Your task to perform on an android device: turn pop-ups off in chrome Image 0: 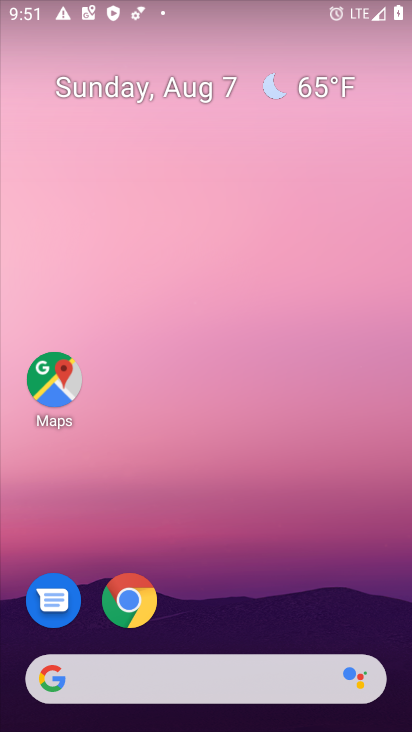
Step 0: click (121, 606)
Your task to perform on an android device: turn pop-ups off in chrome Image 1: 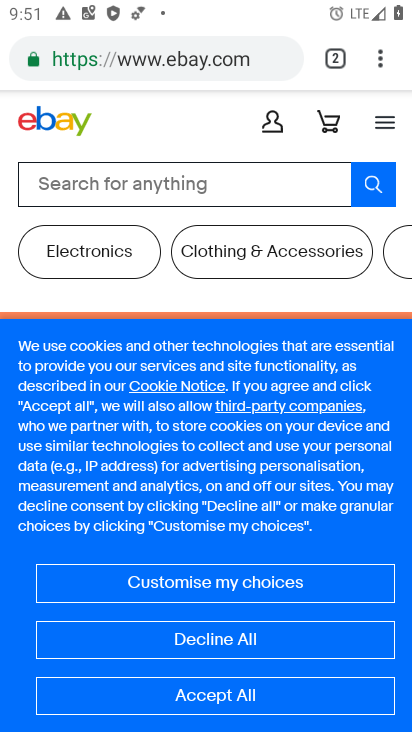
Step 1: click (383, 65)
Your task to perform on an android device: turn pop-ups off in chrome Image 2: 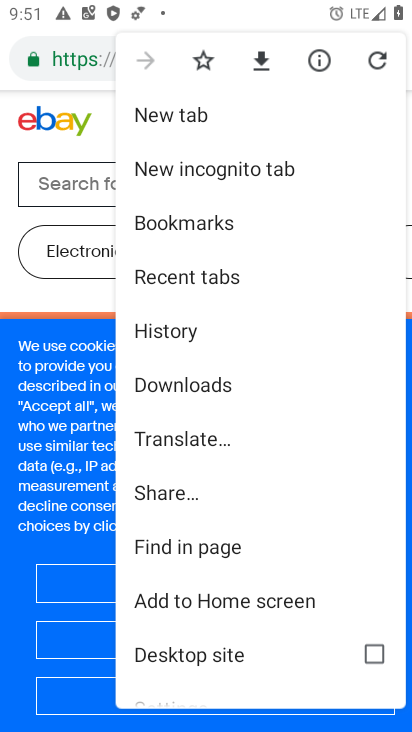
Step 2: drag from (258, 365) to (291, 137)
Your task to perform on an android device: turn pop-ups off in chrome Image 3: 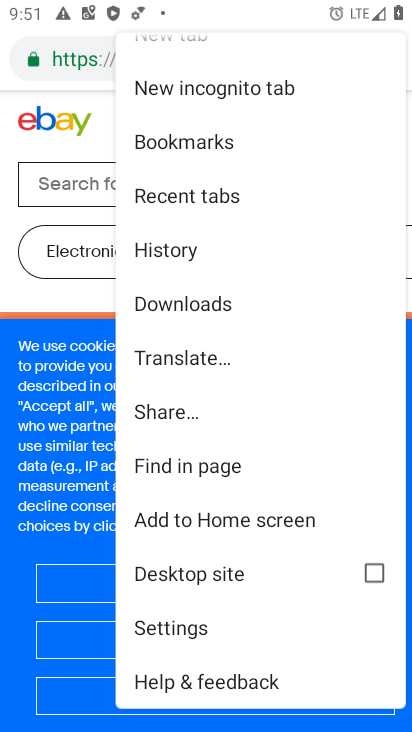
Step 3: click (183, 627)
Your task to perform on an android device: turn pop-ups off in chrome Image 4: 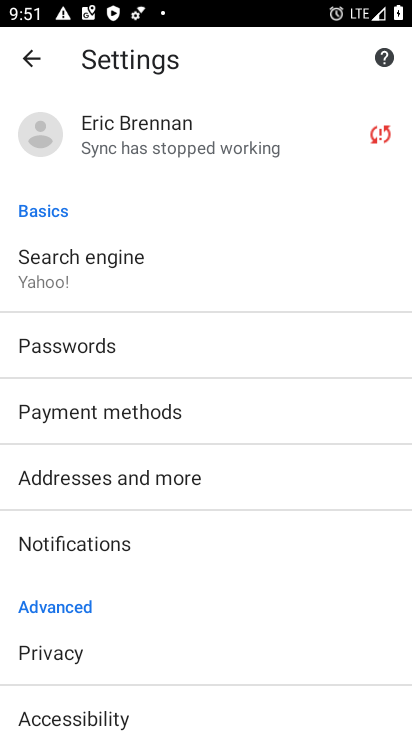
Step 4: drag from (121, 584) to (184, 293)
Your task to perform on an android device: turn pop-ups off in chrome Image 5: 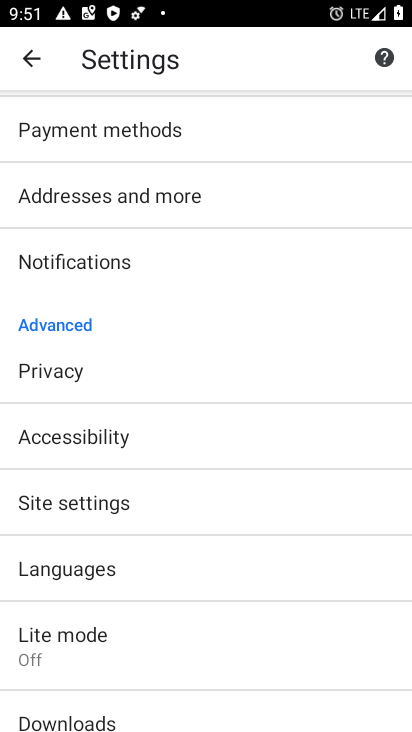
Step 5: click (115, 507)
Your task to perform on an android device: turn pop-ups off in chrome Image 6: 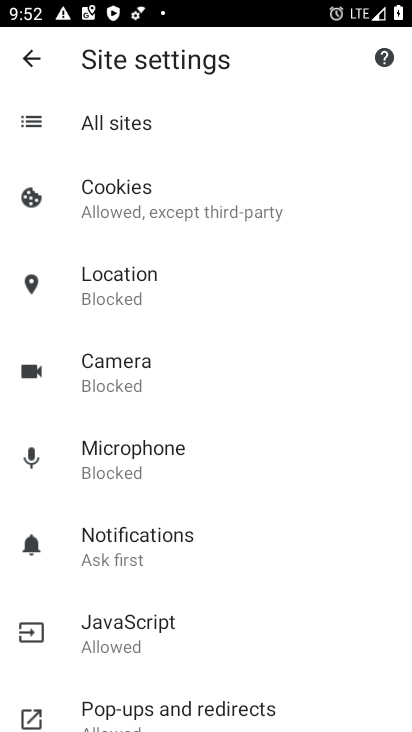
Step 6: click (148, 702)
Your task to perform on an android device: turn pop-ups off in chrome Image 7: 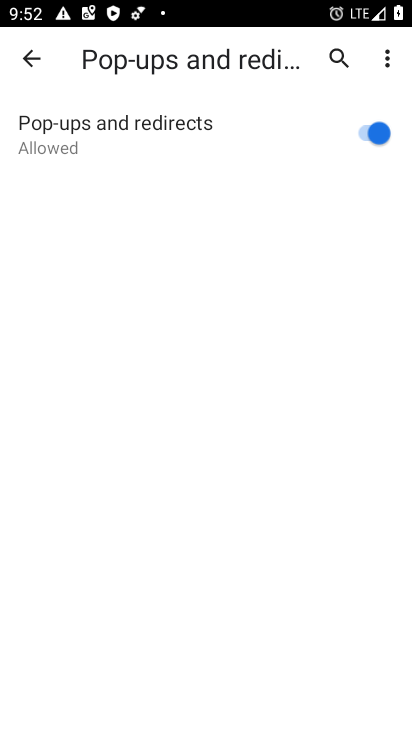
Step 7: click (364, 138)
Your task to perform on an android device: turn pop-ups off in chrome Image 8: 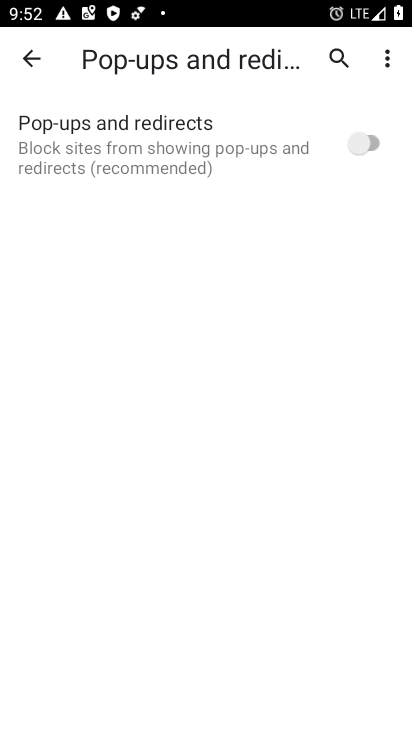
Step 8: task complete